Your task to perform on an android device: Open eBay Image 0: 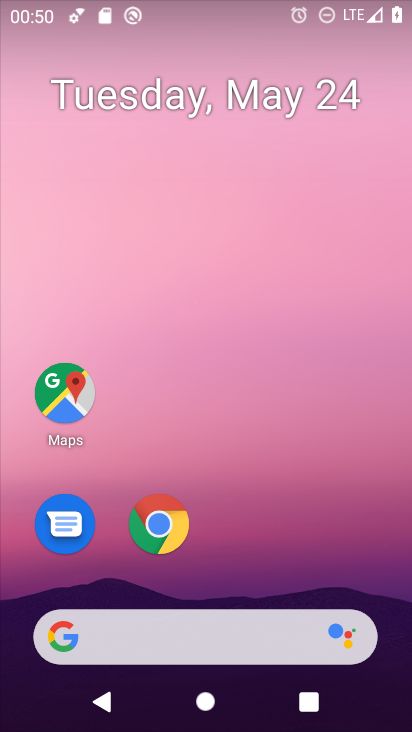
Step 0: click (140, 524)
Your task to perform on an android device: Open eBay Image 1: 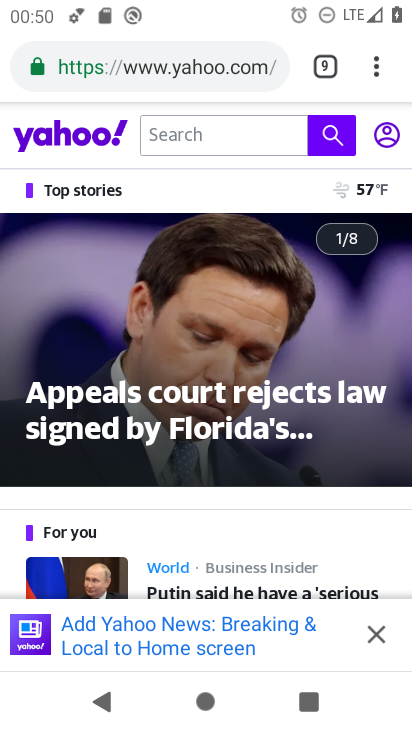
Step 1: click (324, 54)
Your task to perform on an android device: Open eBay Image 2: 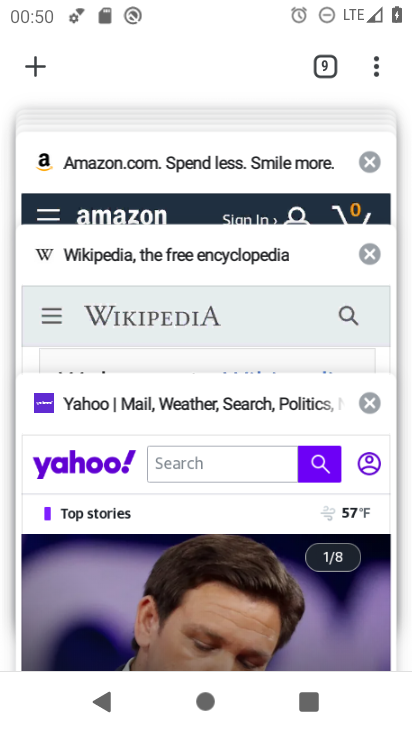
Step 2: drag from (148, 231) to (168, 579)
Your task to perform on an android device: Open eBay Image 3: 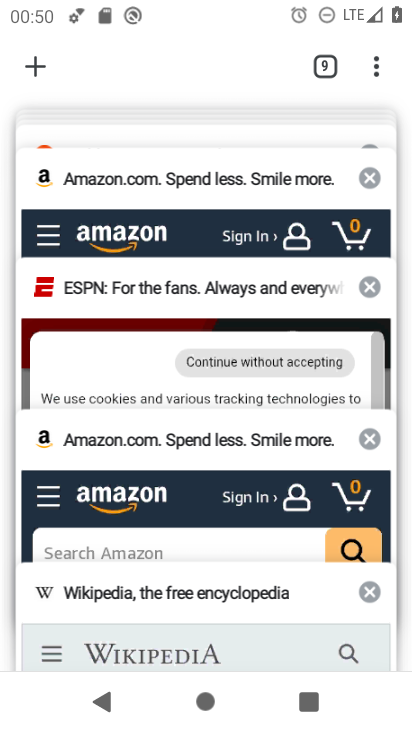
Step 3: drag from (131, 215) to (133, 554)
Your task to perform on an android device: Open eBay Image 4: 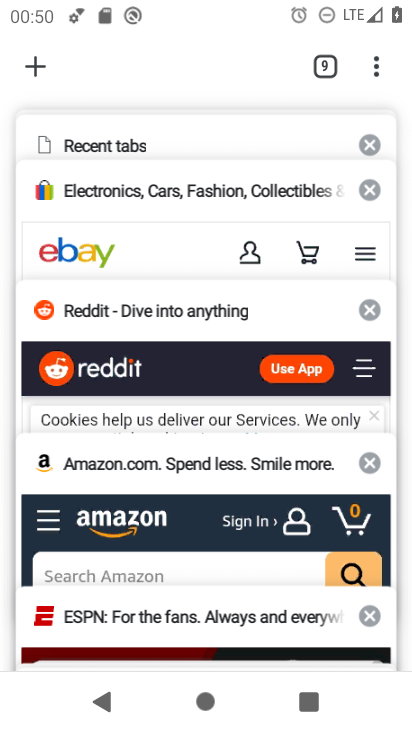
Step 4: click (87, 230)
Your task to perform on an android device: Open eBay Image 5: 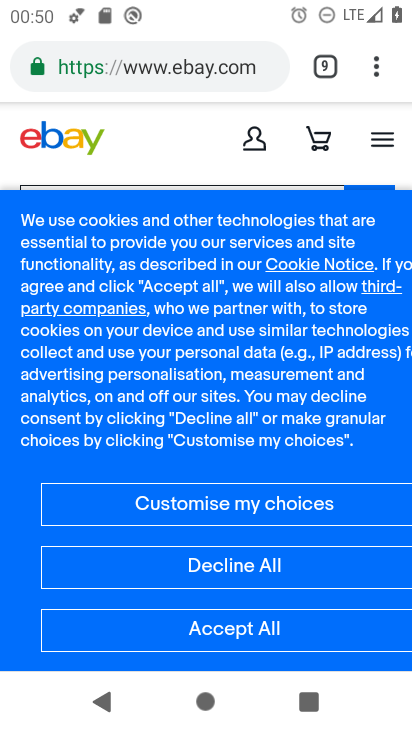
Step 5: task complete